Your task to perform on an android device: change the clock display to show seconds Image 0: 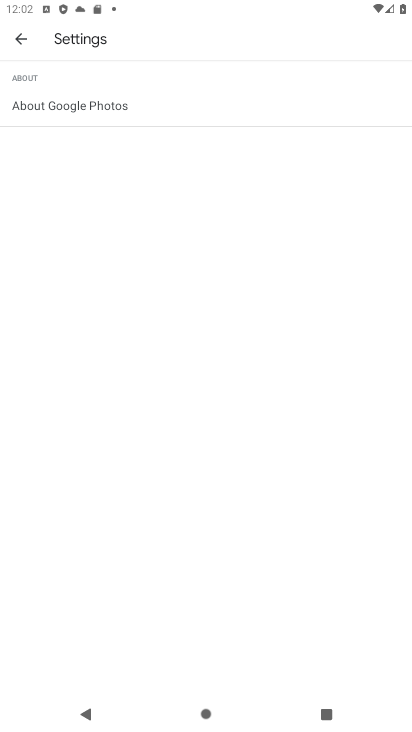
Step 0: press home button
Your task to perform on an android device: change the clock display to show seconds Image 1: 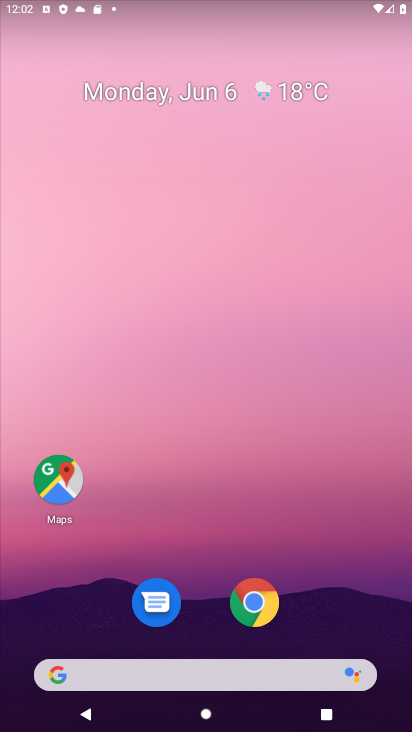
Step 1: drag from (361, 592) to (211, 191)
Your task to perform on an android device: change the clock display to show seconds Image 2: 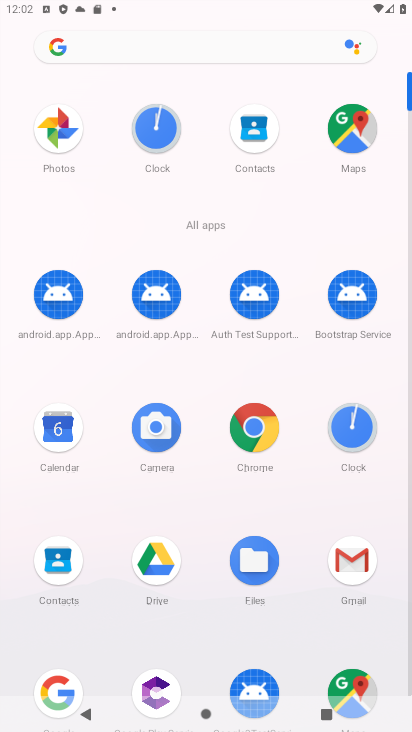
Step 2: click (160, 145)
Your task to perform on an android device: change the clock display to show seconds Image 3: 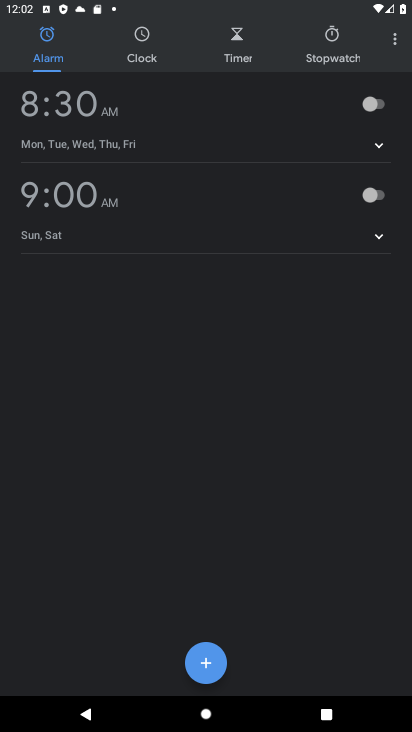
Step 3: task complete